Your task to perform on an android device: turn pop-ups off in chrome Image 0: 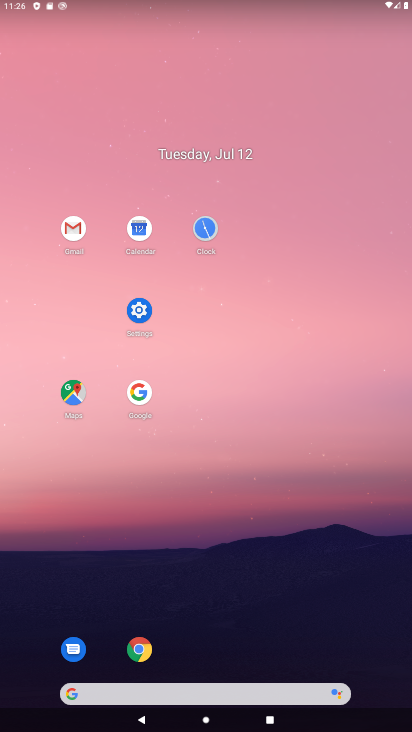
Step 0: click (137, 643)
Your task to perform on an android device: turn pop-ups off in chrome Image 1: 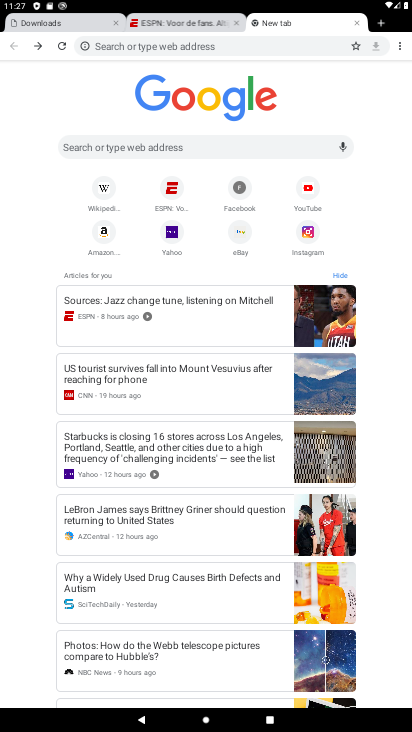
Step 1: click (399, 43)
Your task to perform on an android device: turn pop-ups off in chrome Image 2: 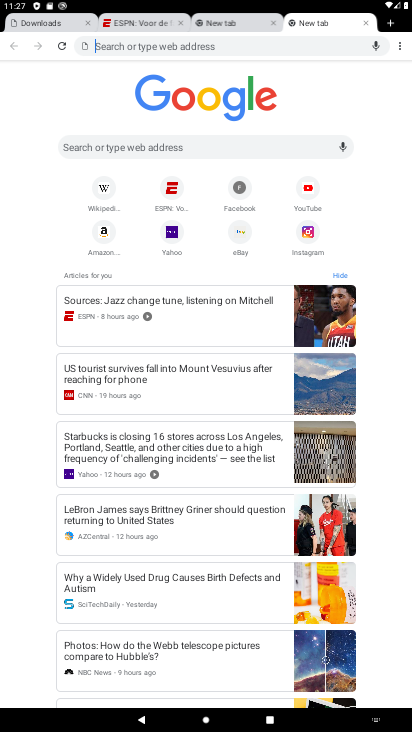
Step 2: click (404, 49)
Your task to perform on an android device: turn pop-ups off in chrome Image 3: 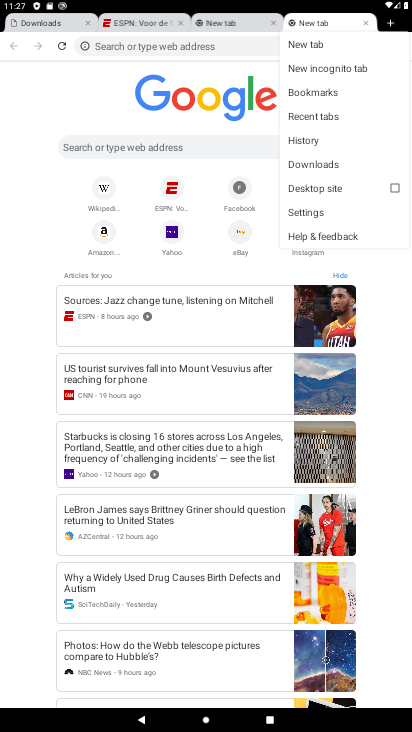
Step 3: click (308, 203)
Your task to perform on an android device: turn pop-ups off in chrome Image 4: 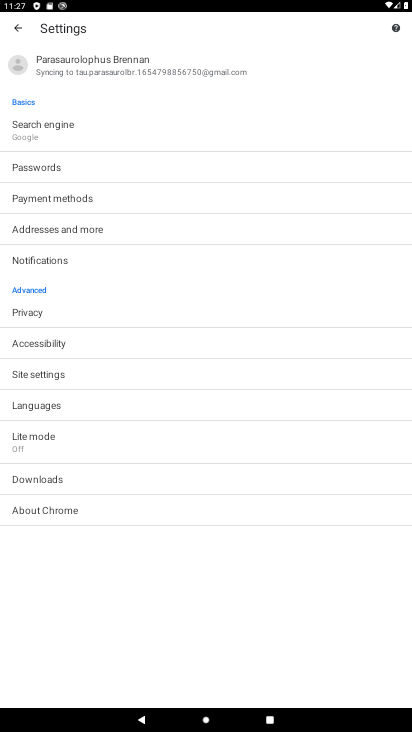
Step 4: click (63, 367)
Your task to perform on an android device: turn pop-ups off in chrome Image 5: 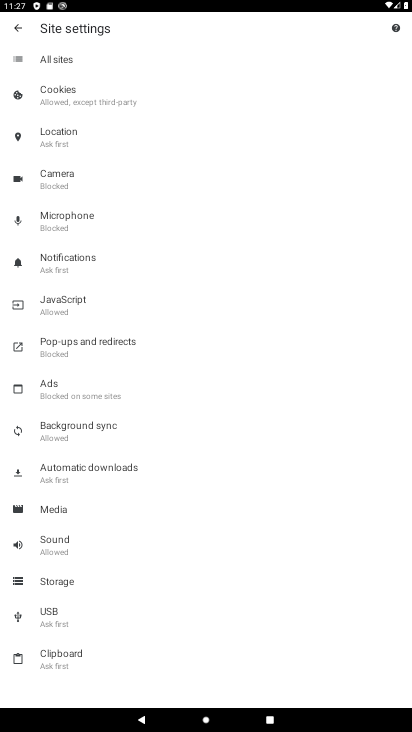
Step 5: click (63, 354)
Your task to perform on an android device: turn pop-ups off in chrome Image 6: 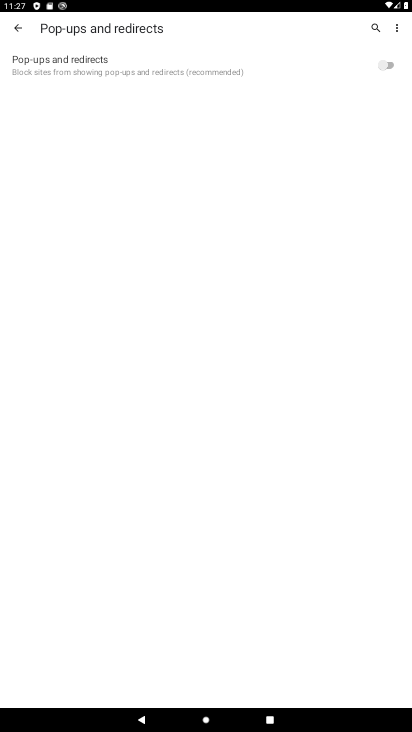
Step 6: task complete